Your task to perform on an android device: toggle airplane mode Image 0: 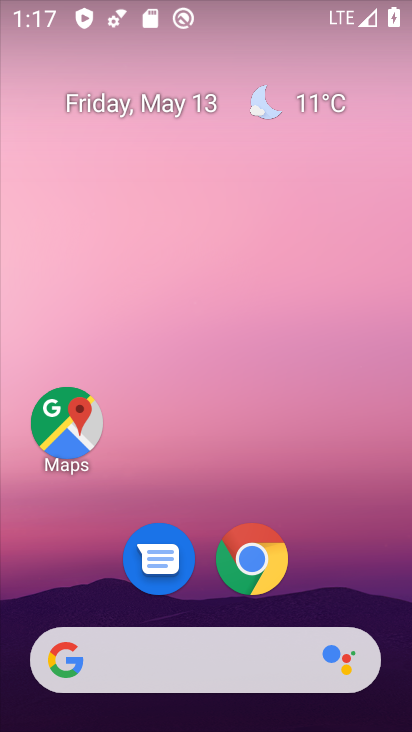
Step 0: drag from (387, 582) to (327, 211)
Your task to perform on an android device: toggle airplane mode Image 1: 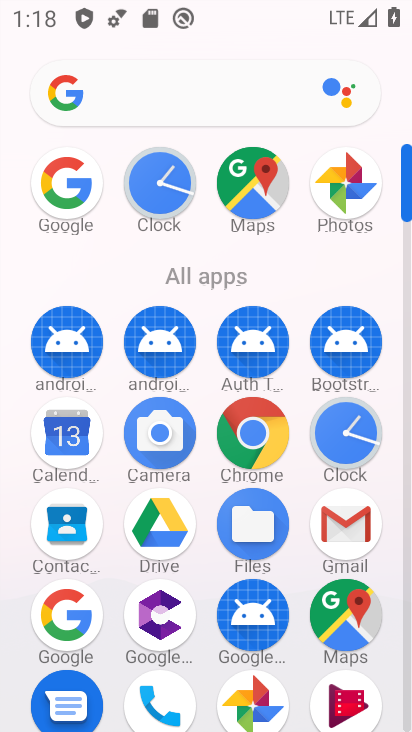
Step 1: drag from (407, 137) to (400, 59)
Your task to perform on an android device: toggle airplane mode Image 2: 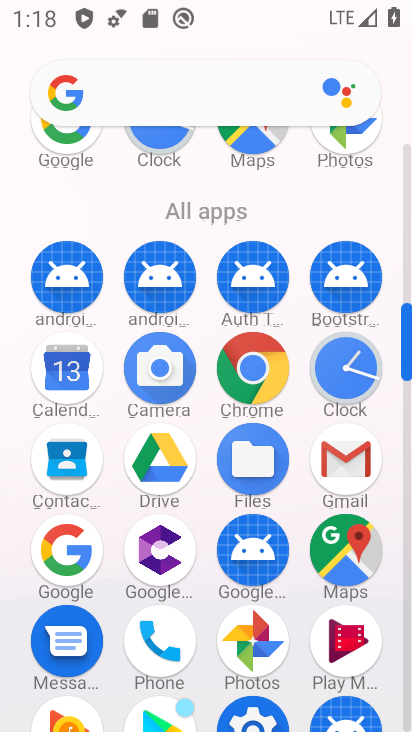
Step 2: drag from (406, 311) to (398, 205)
Your task to perform on an android device: toggle airplane mode Image 3: 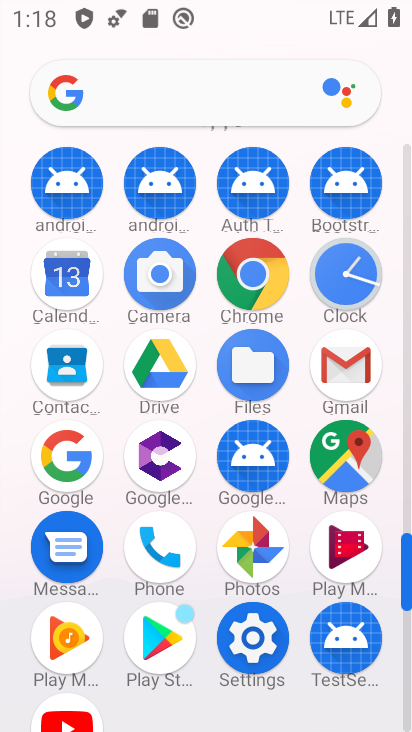
Step 3: click (260, 641)
Your task to perform on an android device: toggle airplane mode Image 4: 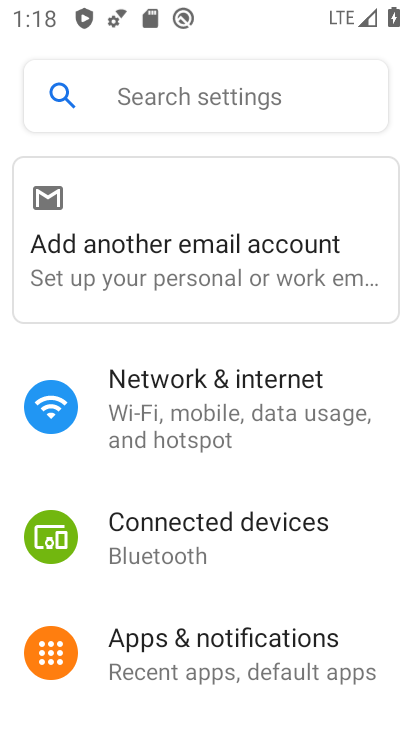
Step 4: click (165, 414)
Your task to perform on an android device: toggle airplane mode Image 5: 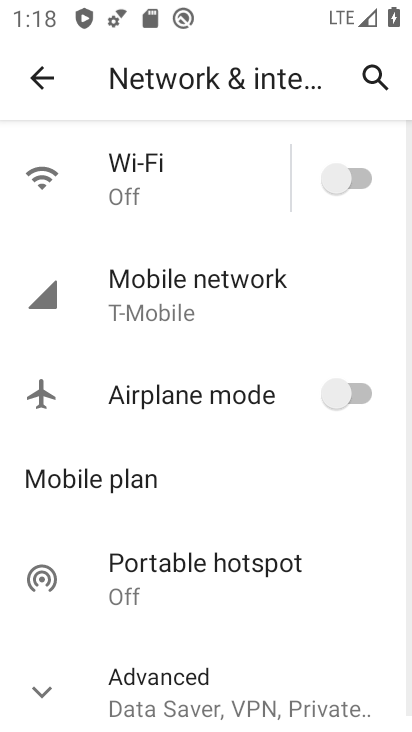
Step 5: click (350, 394)
Your task to perform on an android device: toggle airplane mode Image 6: 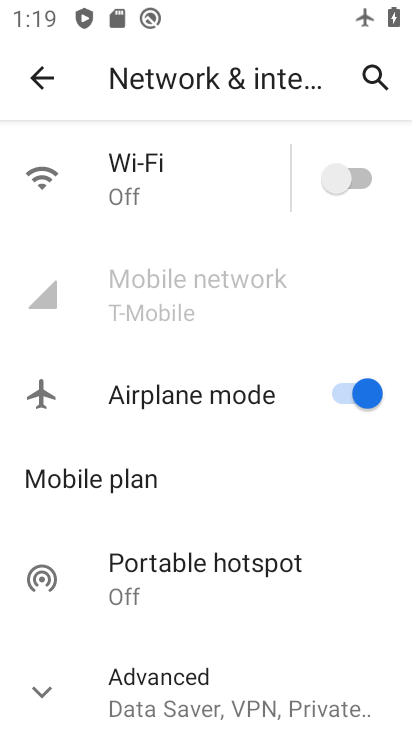
Step 6: task complete